Your task to perform on an android device: Clear the cart on amazon. Search for "bose quietcomfort 35" on amazon, select the first entry, add it to the cart, then select checkout. Image 0: 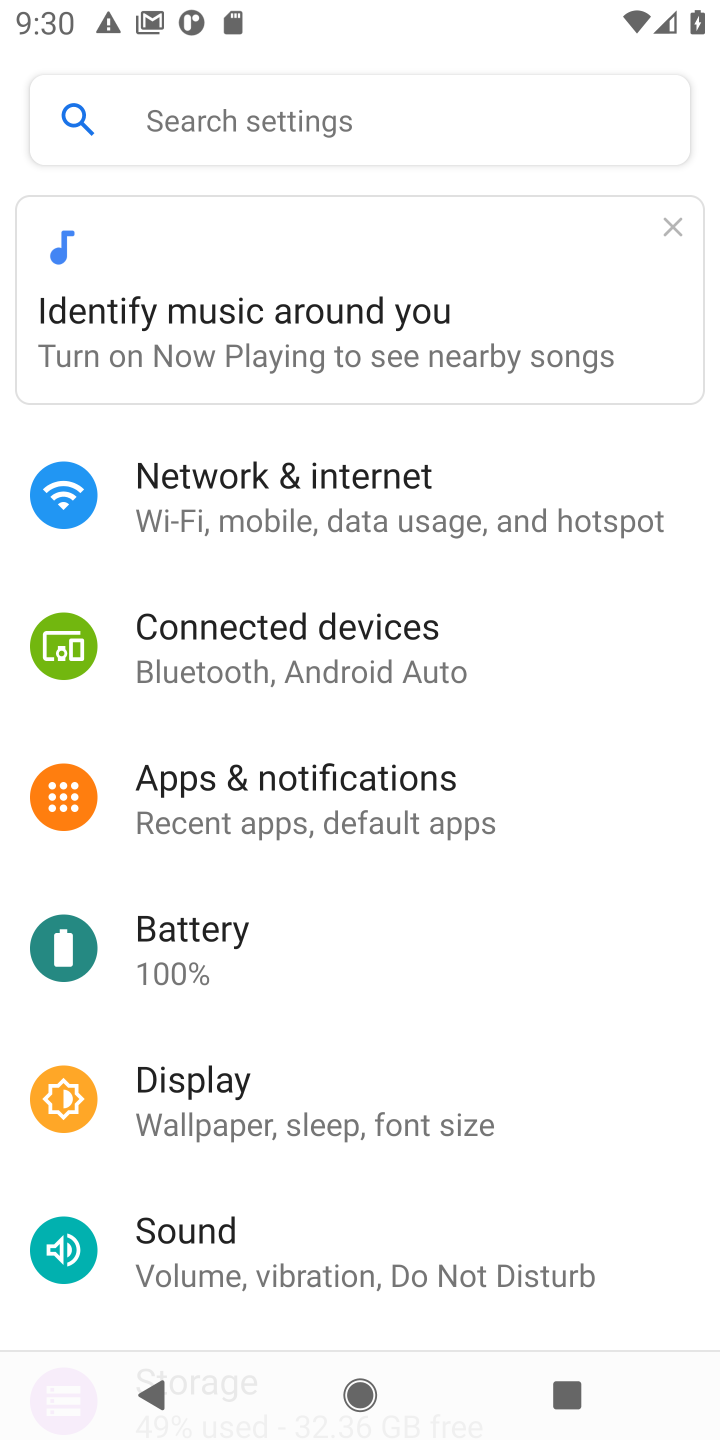
Step 0: press home button
Your task to perform on an android device: Clear the cart on amazon. Search for "bose quietcomfort 35" on amazon, select the first entry, add it to the cart, then select checkout. Image 1: 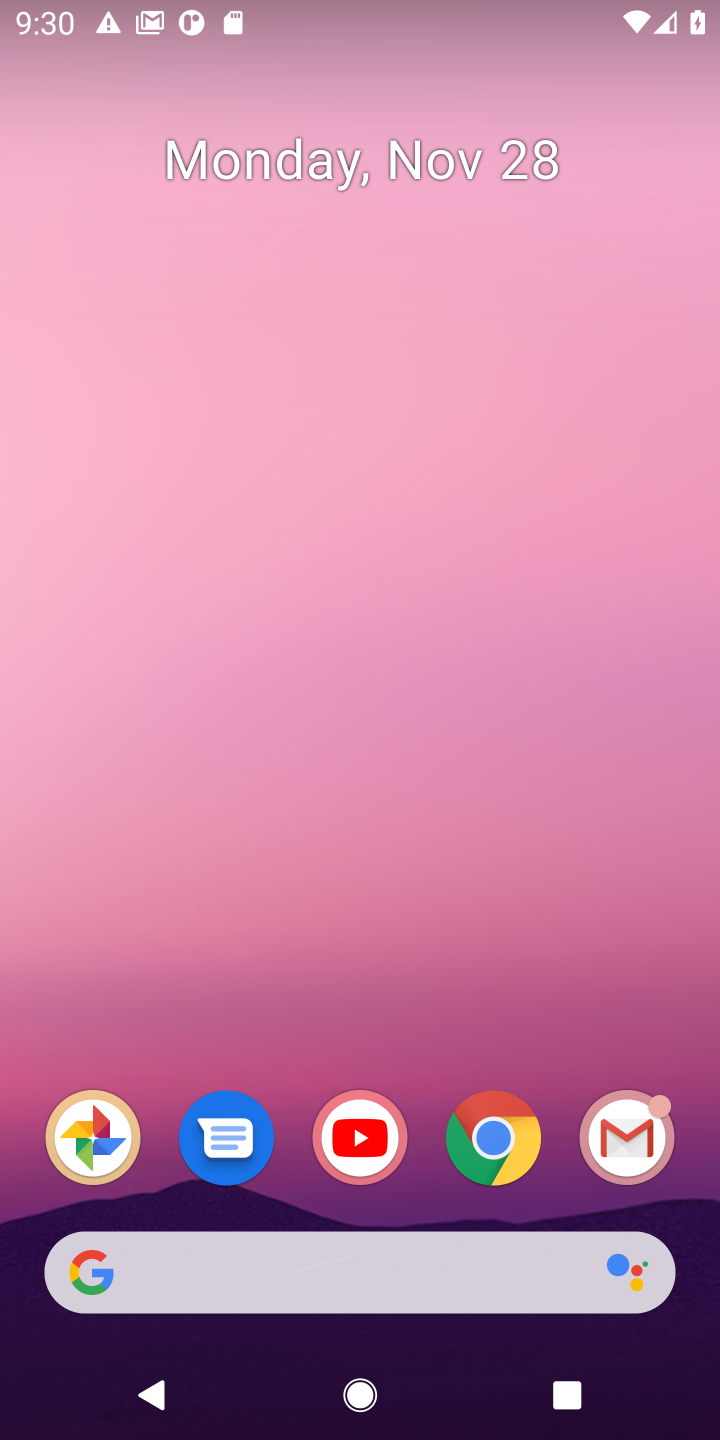
Step 1: click (504, 1143)
Your task to perform on an android device: Clear the cart on amazon. Search for "bose quietcomfort 35" on amazon, select the first entry, add it to the cart, then select checkout. Image 2: 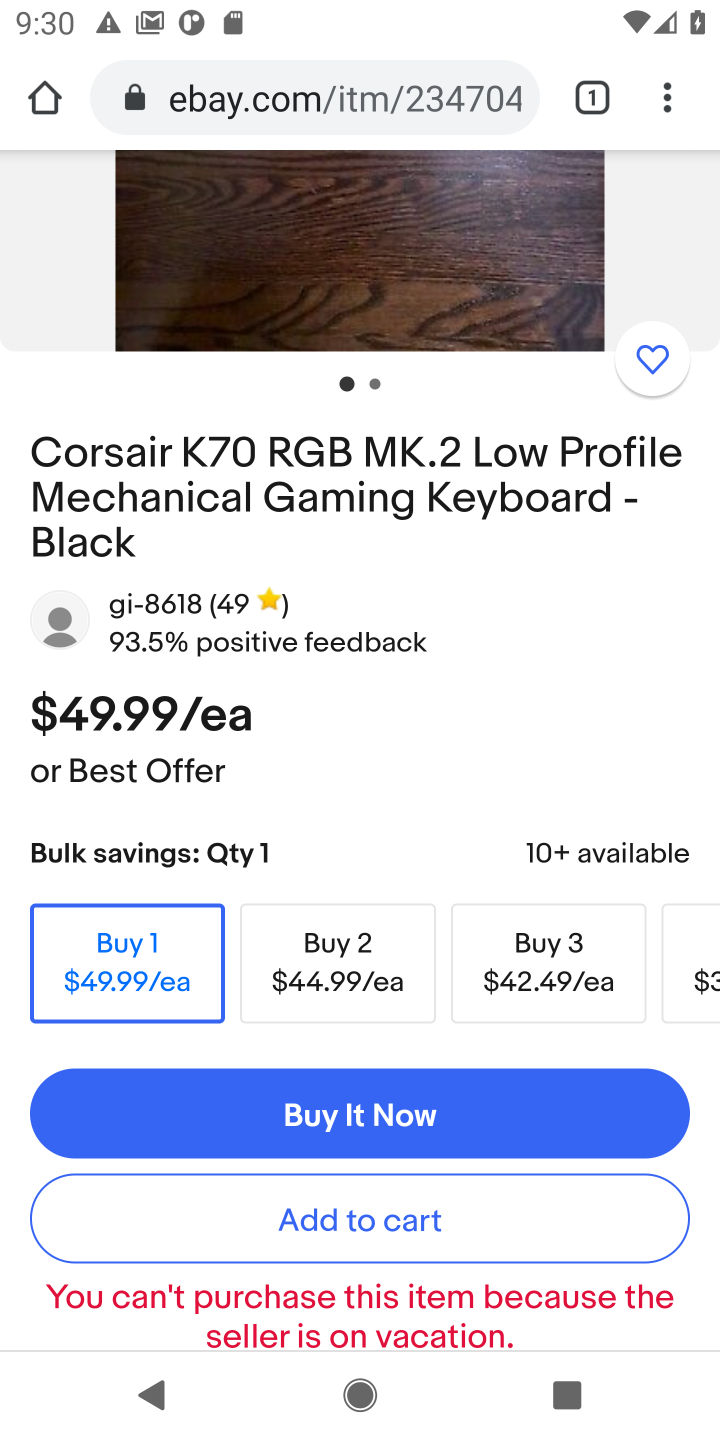
Step 2: click (366, 95)
Your task to perform on an android device: Clear the cart on amazon. Search for "bose quietcomfort 35" on amazon, select the first entry, add it to the cart, then select checkout. Image 3: 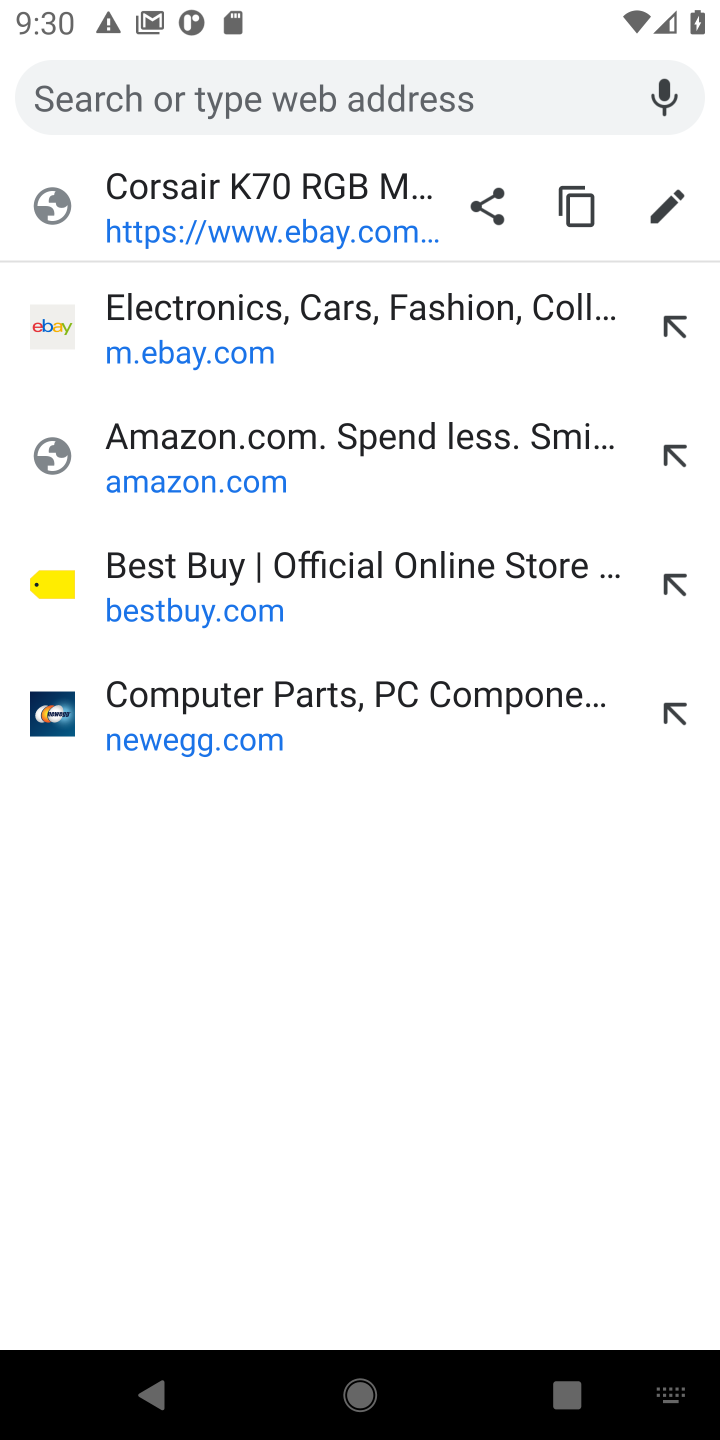
Step 3: click (186, 439)
Your task to perform on an android device: Clear the cart on amazon. Search for "bose quietcomfort 35" on amazon, select the first entry, add it to the cart, then select checkout. Image 4: 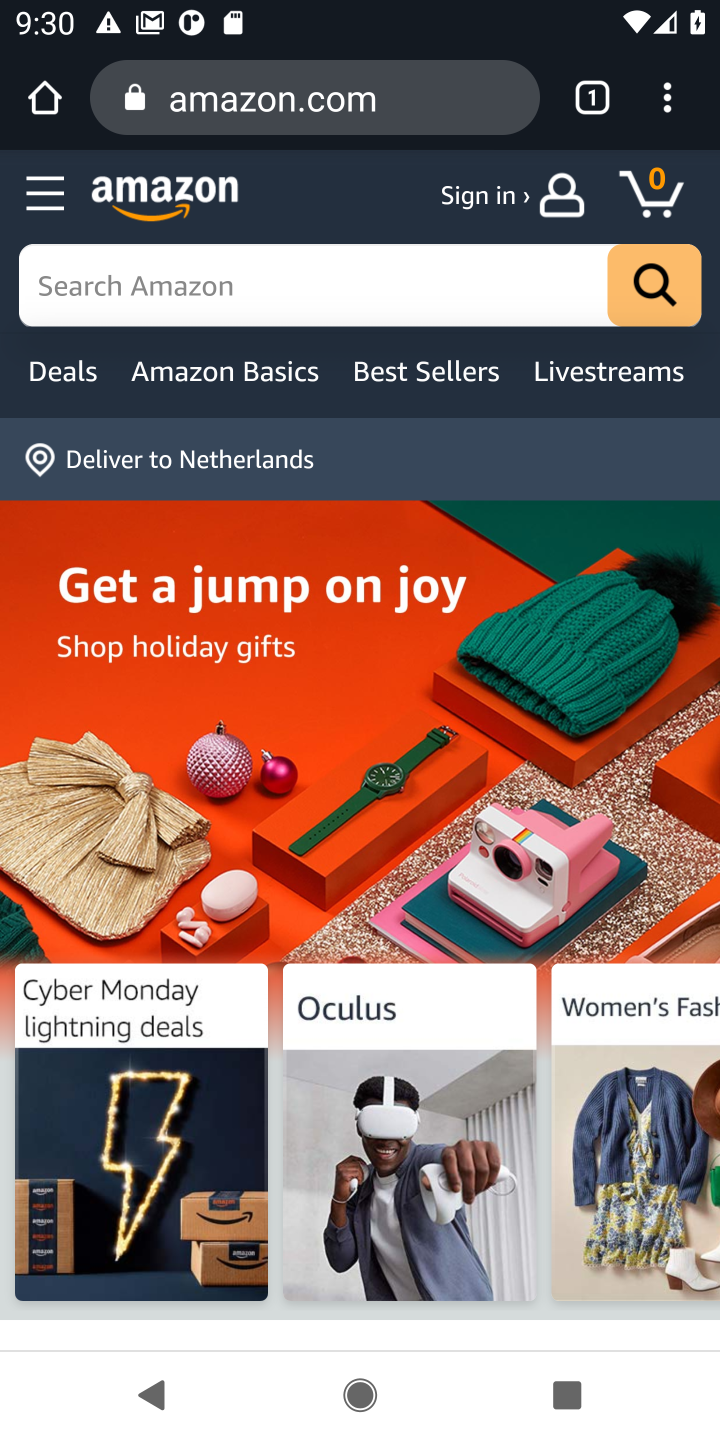
Step 4: click (662, 203)
Your task to perform on an android device: Clear the cart on amazon. Search for "bose quietcomfort 35" on amazon, select the first entry, add it to the cart, then select checkout. Image 5: 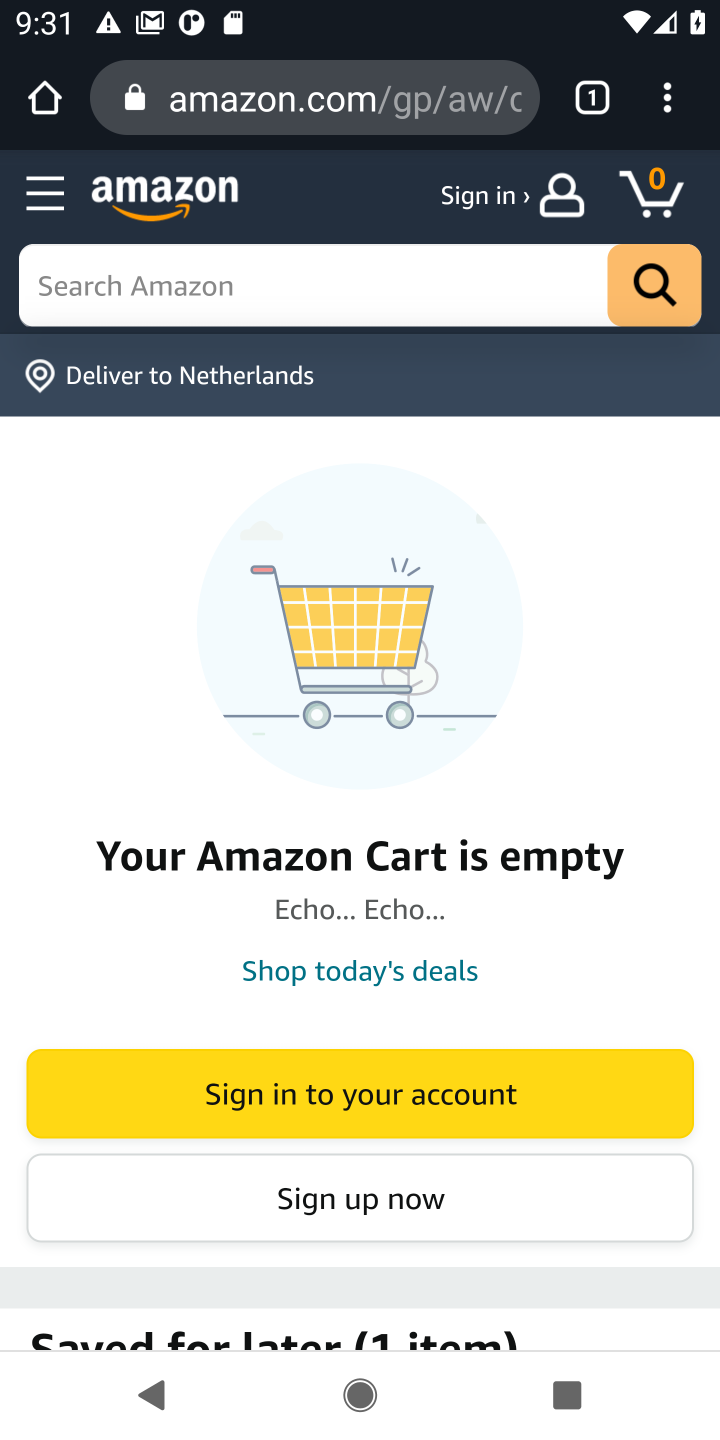
Step 5: click (175, 284)
Your task to perform on an android device: Clear the cart on amazon. Search for "bose quietcomfort 35" on amazon, select the first entry, add it to the cart, then select checkout. Image 6: 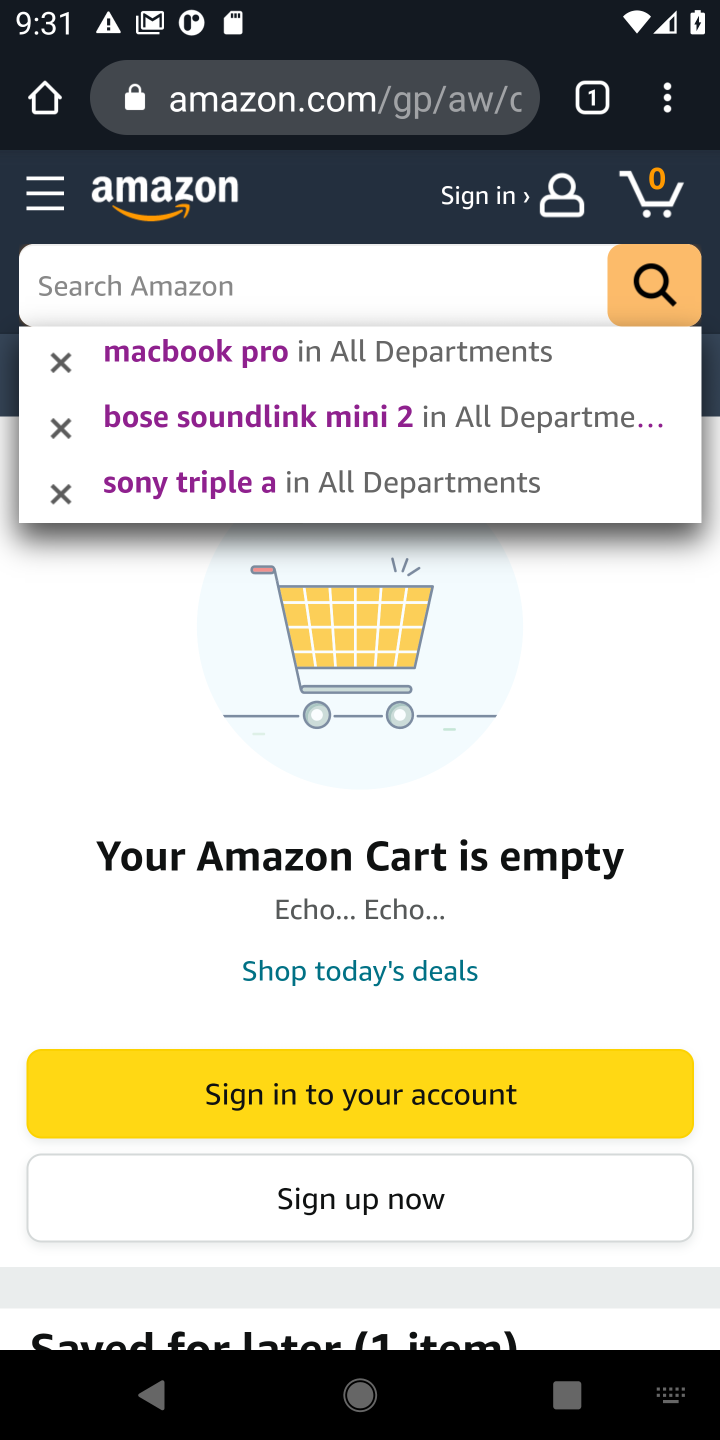
Step 6: type "bose quietcomfort 35"
Your task to perform on an android device: Clear the cart on amazon. Search for "bose quietcomfort 35" on amazon, select the first entry, add it to the cart, then select checkout. Image 7: 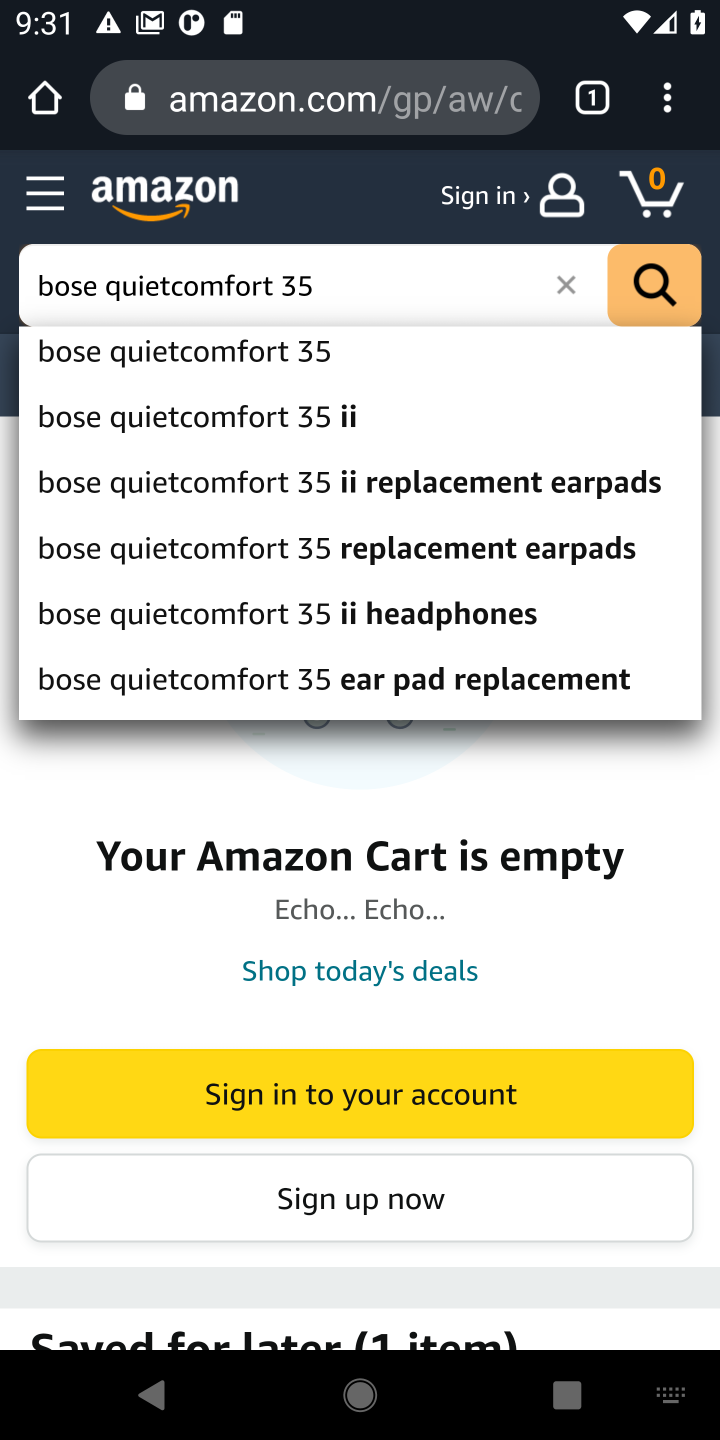
Step 7: click (162, 364)
Your task to perform on an android device: Clear the cart on amazon. Search for "bose quietcomfort 35" on amazon, select the first entry, add it to the cart, then select checkout. Image 8: 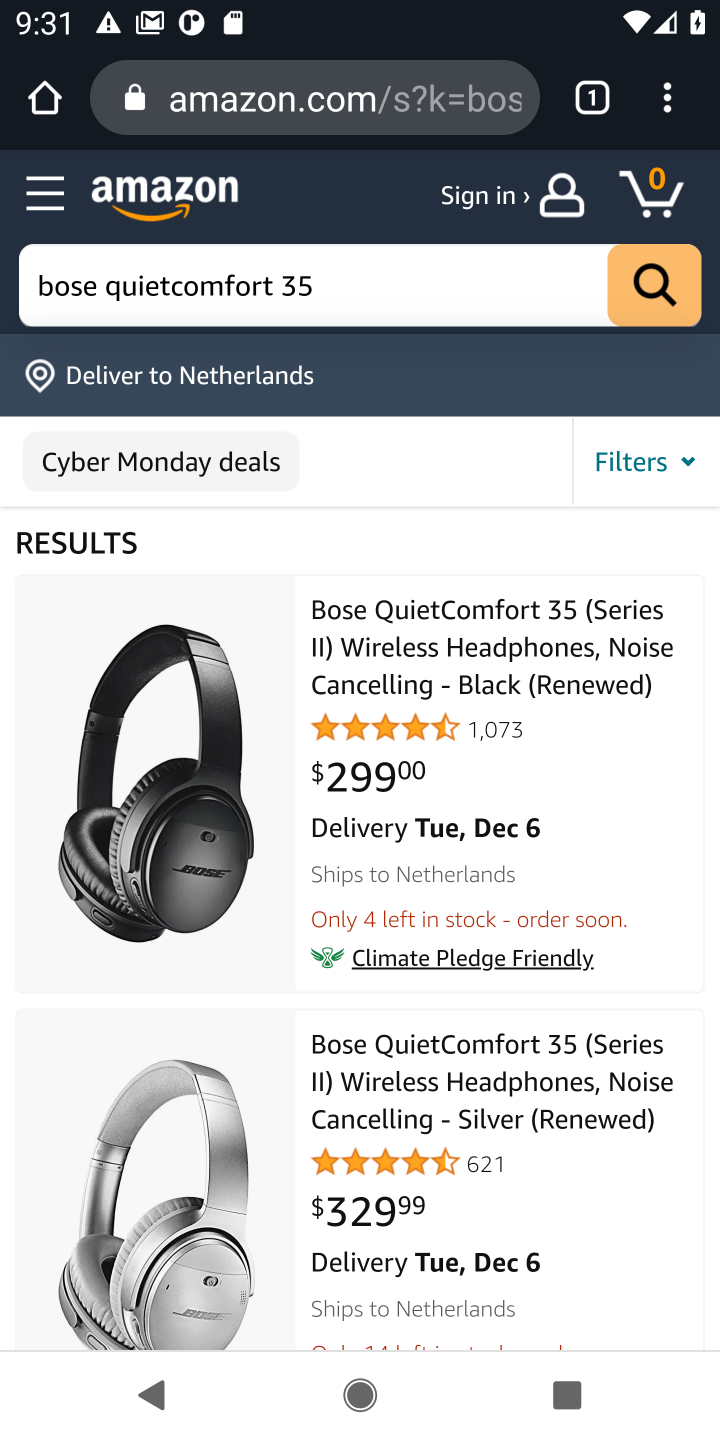
Step 8: click (436, 664)
Your task to perform on an android device: Clear the cart on amazon. Search for "bose quietcomfort 35" on amazon, select the first entry, add it to the cart, then select checkout. Image 9: 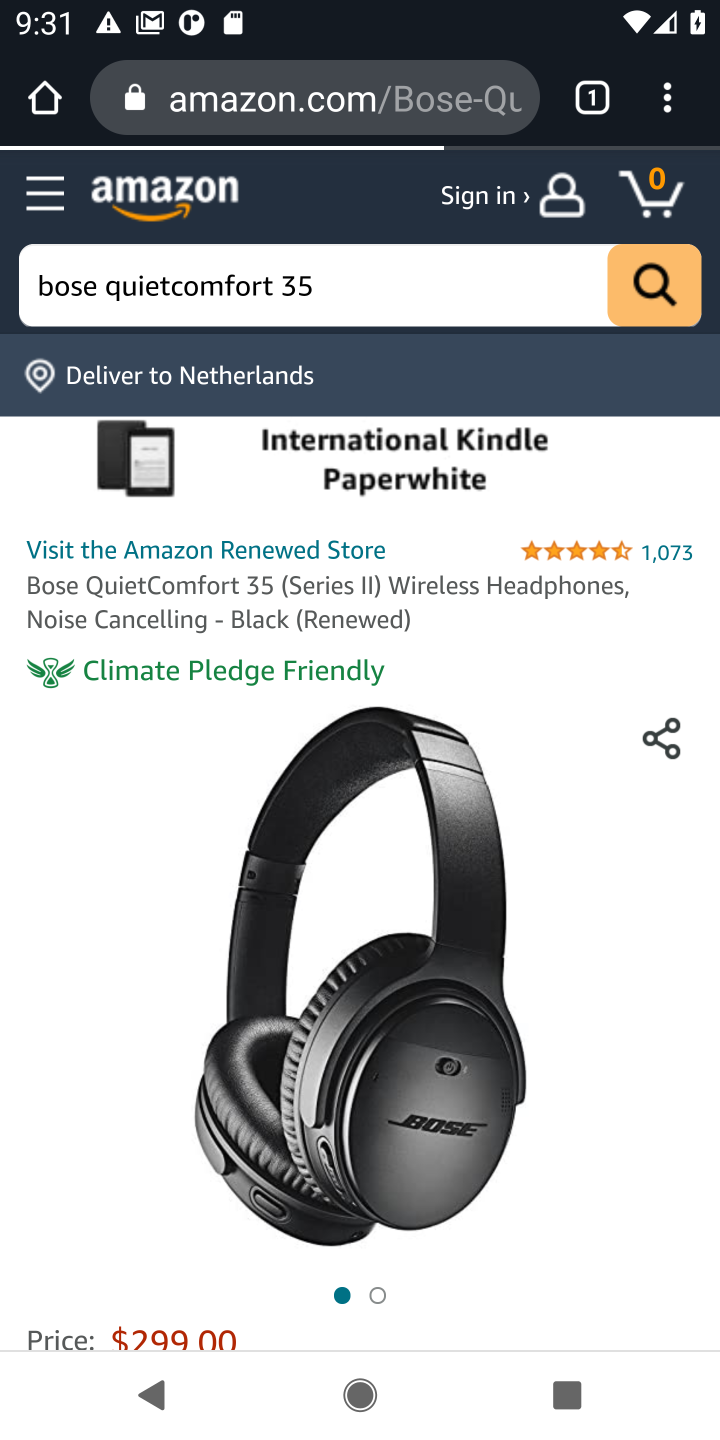
Step 9: drag from (516, 1191) to (587, 542)
Your task to perform on an android device: Clear the cart on amazon. Search for "bose quietcomfort 35" on amazon, select the first entry, add it to the cart, then select checkout. Image 10: 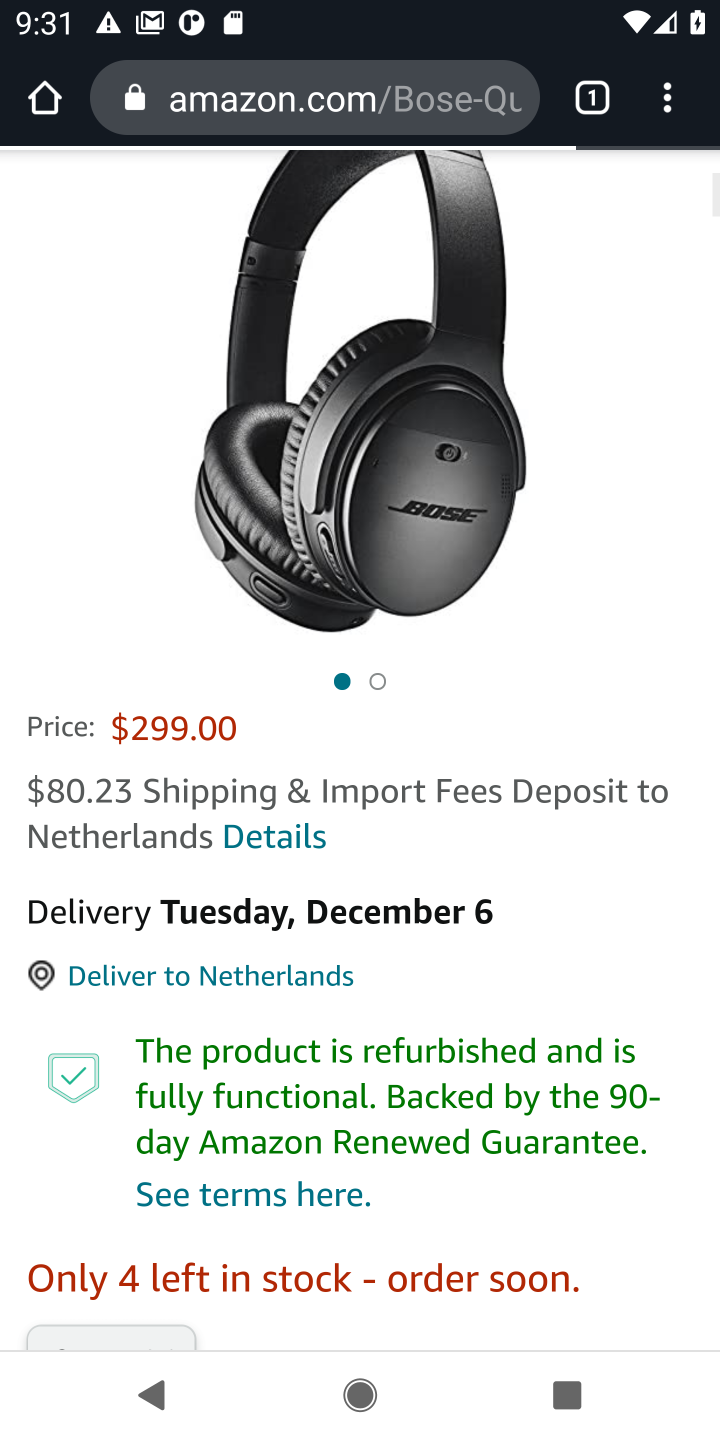
Step 10: drag from (492, 959) to (526, 428)
Your task to perform on an android device: Clear the cart on amazon. Search for "bose quietcomfort 35" on amazon, select the first entry, add it to the cart, then select checkout. Image 11: 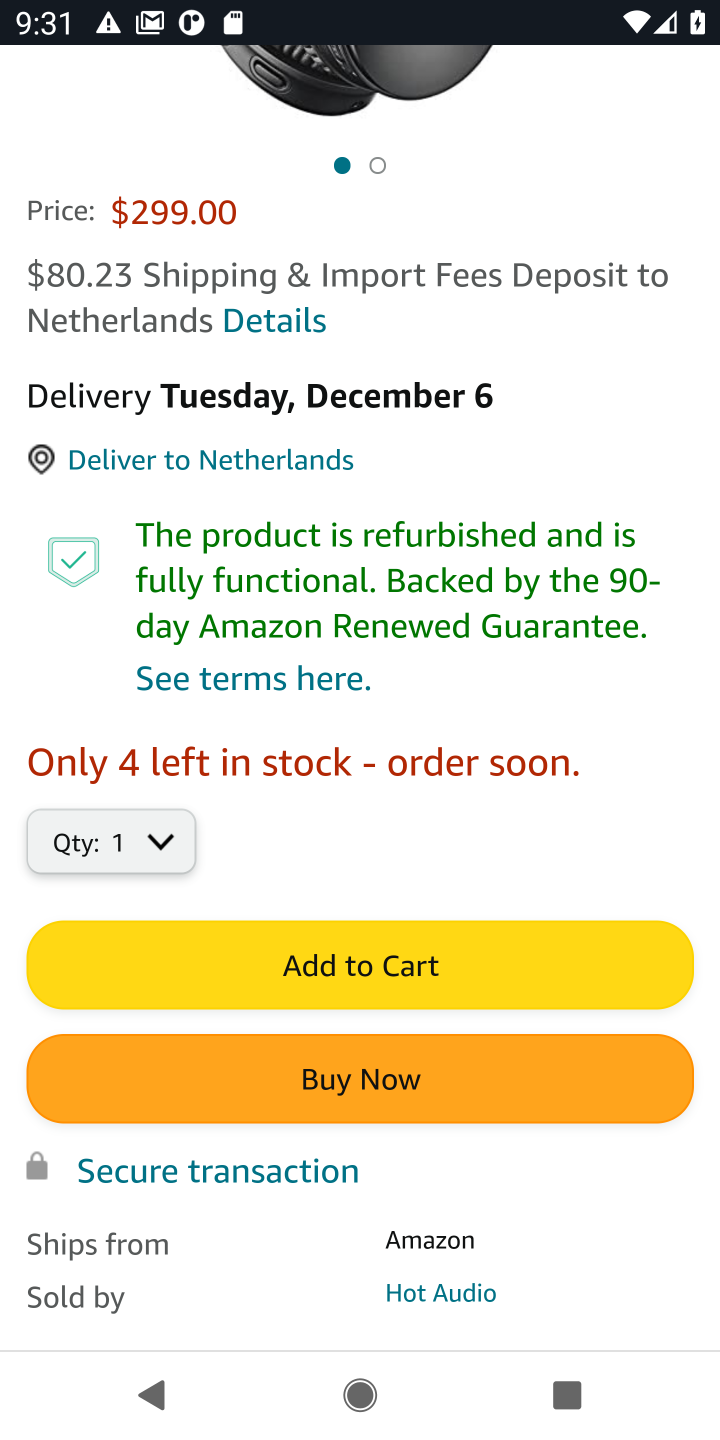
Step 11: click (326, 962)
Your task to perform on an android device: Clear the cart on amazon. Search for "bose quietcomfort 35" on amazon, select the first entry, add it to the cart, then select checkout. Image 12: 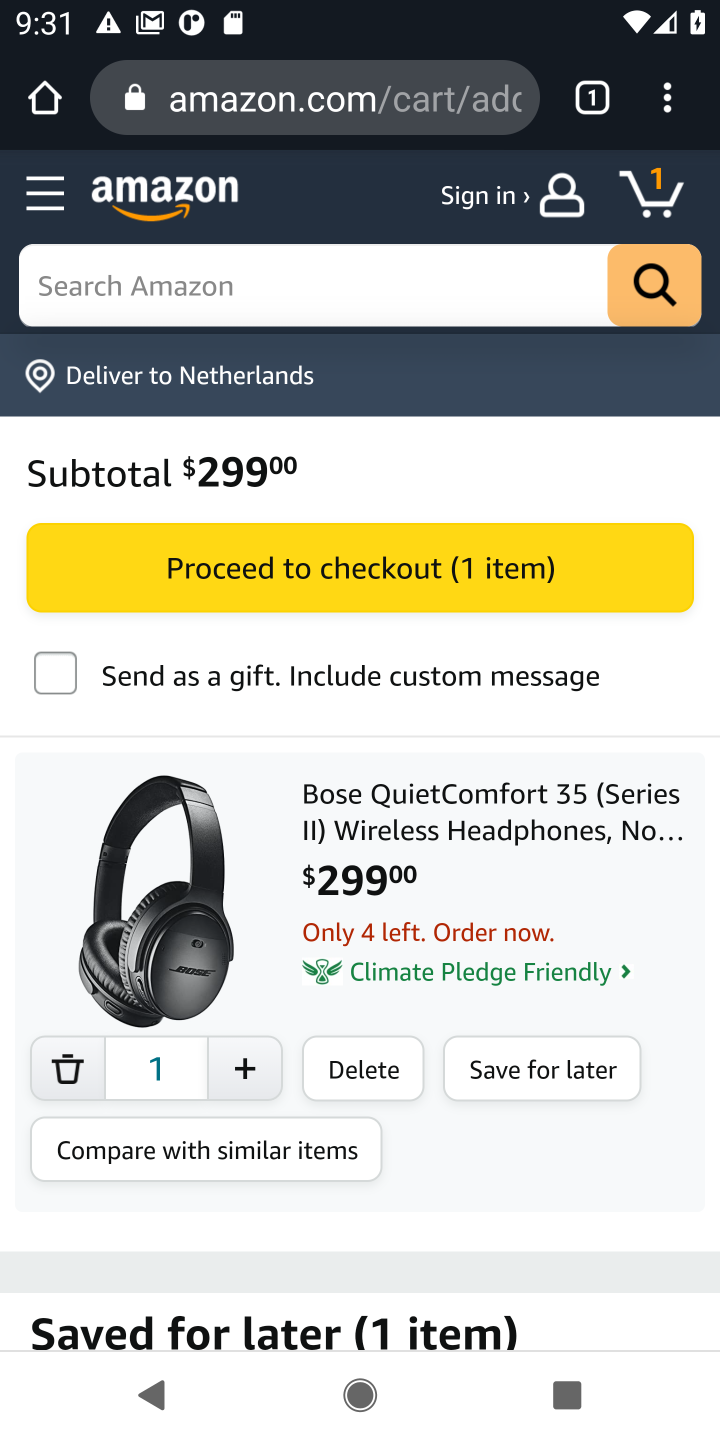
Step 12: click (311, 573)
Your task to perform on an android device: Clear the cart on amazon. Search for "bose quietcomfort 35" on amazon, select the first entry, add it to the cart, then select checkout. Image 13: 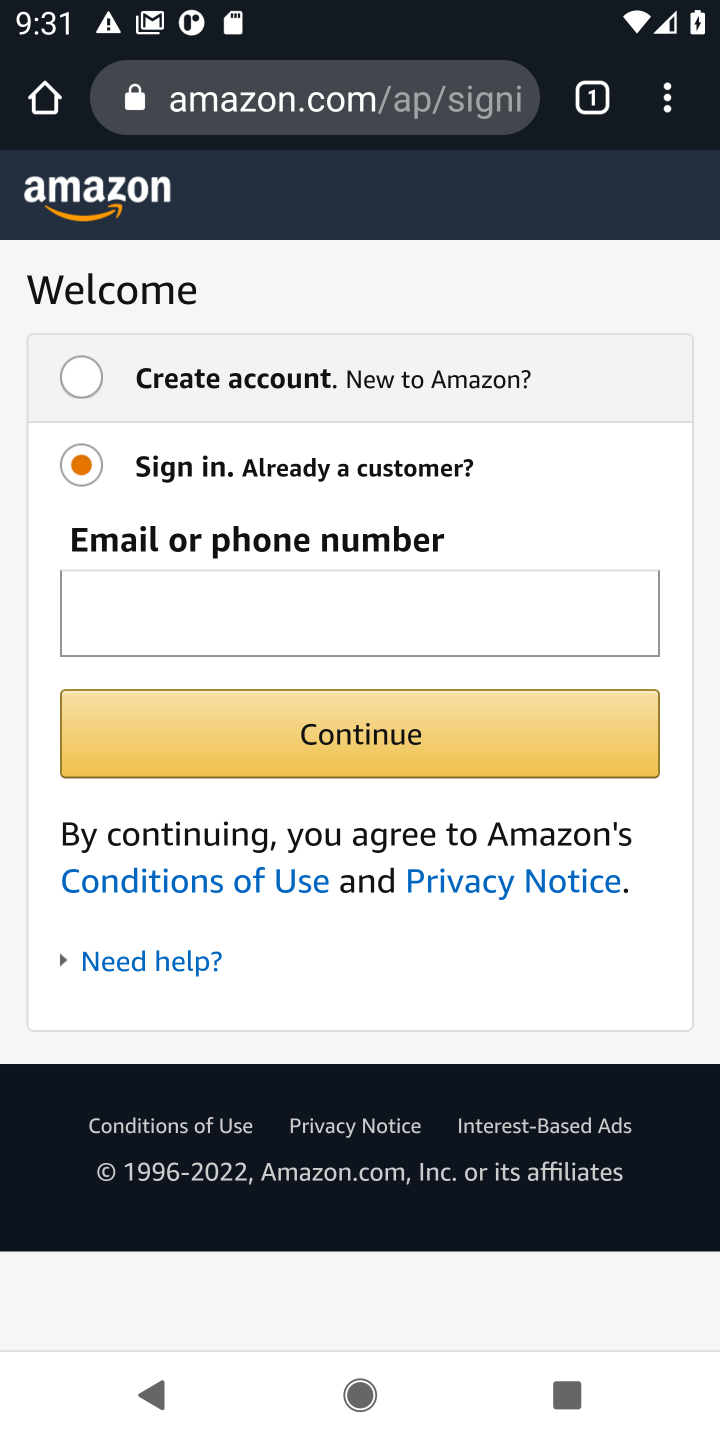
Step 13: task complete